Your task to perform on an android device: turn on priority inbox in the gmail app Image 0: 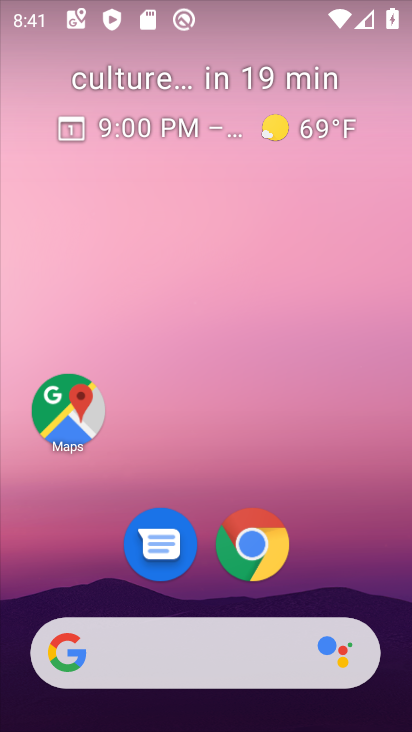
Step 0: drag from (230, 557) to (246, 187)
Your task to perform on an android device: turn on priority inbox in the gmail app Image 1: 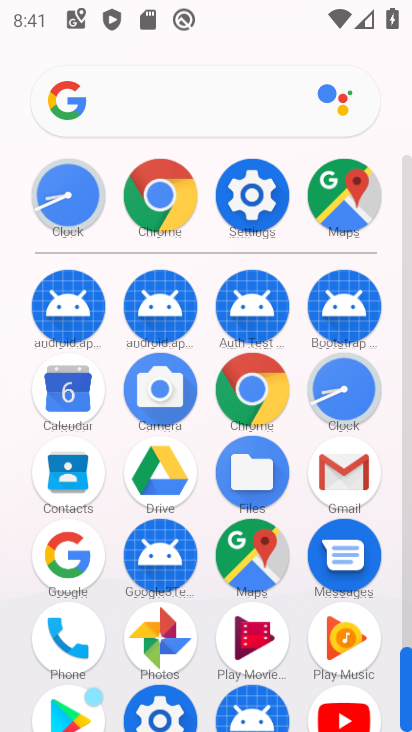
Step 1: click (342, 478)
Your task to perform on an android device: turn on priority inbox in the gmail app Image 2: 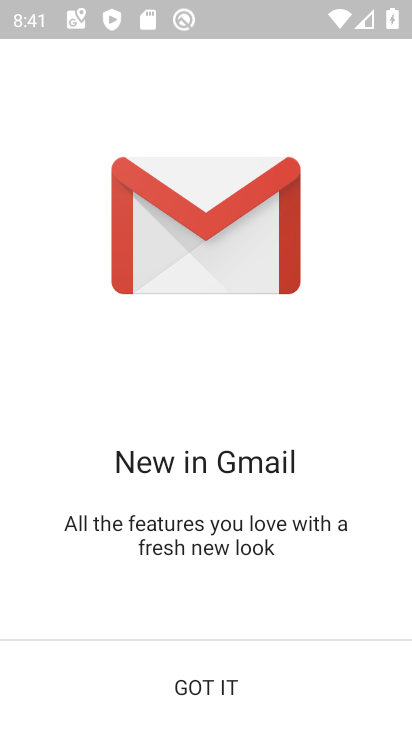
Step 2: click (221, 697)
Your task to perform on an android device: turn on priority inbox in the gmail app Image 3: 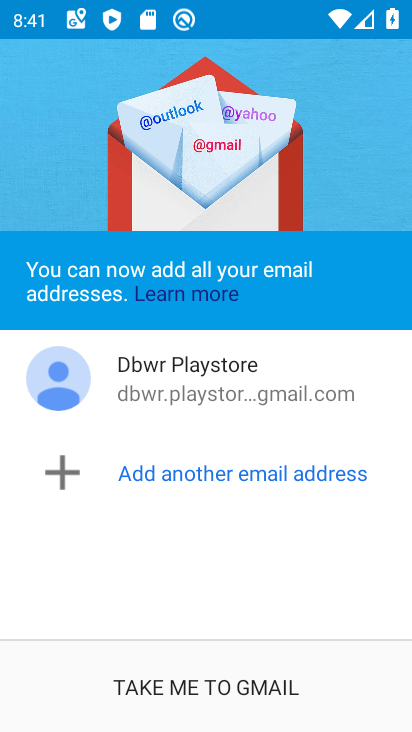
Step 3: click (213, 694)
Your task to perform on an android device: turn on priority inbox in the gmail app Image 4: 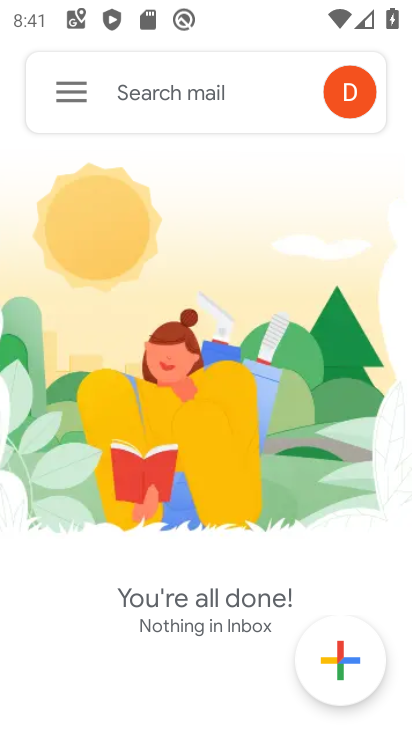
Step 4: click (68, 87)
Your task to perform on an android device: turn on priority inbox in the gmail app Image 5: 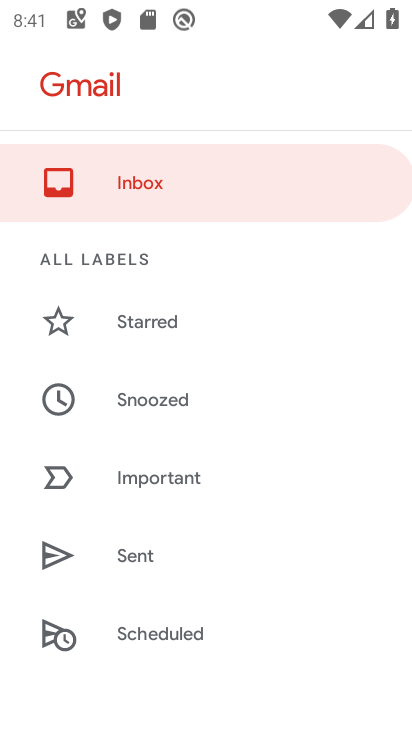
Step 5: drag from (120, 592) to (161, 106)
Your task to perform on an android device: turn on priority inbox in the gmail app Image 6: 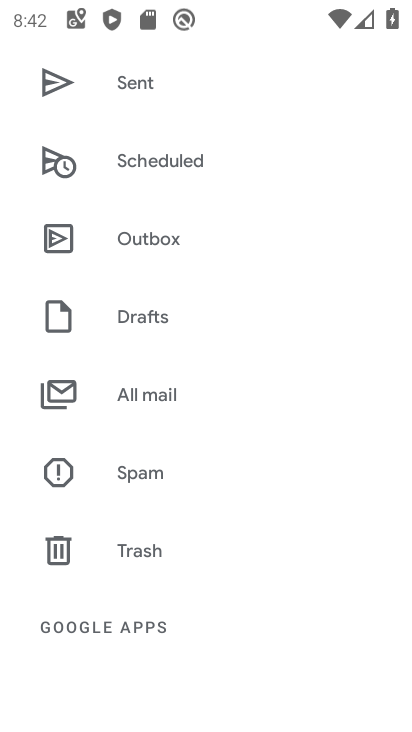
Step 6: drag from (219, 585) to (251, 67)
Your task to perform on an android device: turn on priority inbox in the gmail app Image 7: 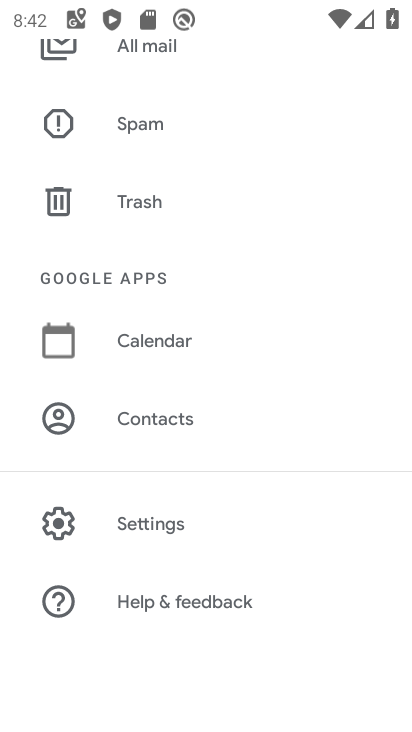
Step 7: click (151, 519)
Your task to perform on an android device: turn on priority inbox in the gmail app Image 8: 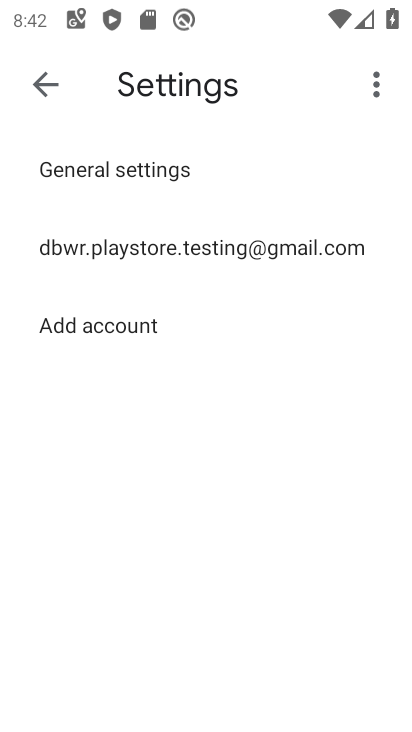
Step 8: click (144, 234)
Your task to perform on an android device: turn on priority inbox in the gmail app Image 9: 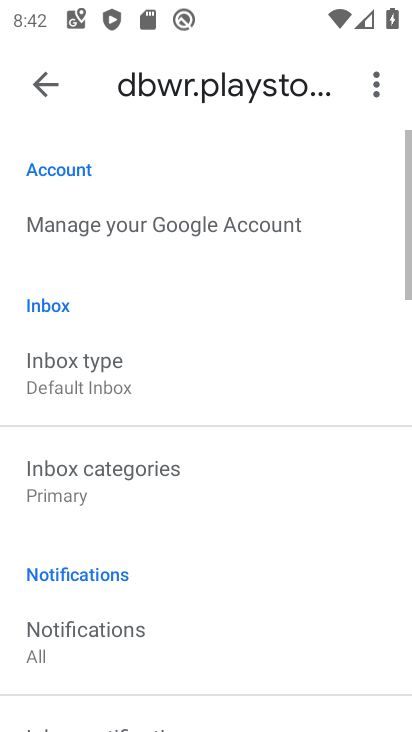
Step 9: click (89, 370)
Your task to perform on an android device: turn on priority inbox in the gmail app Image 10: 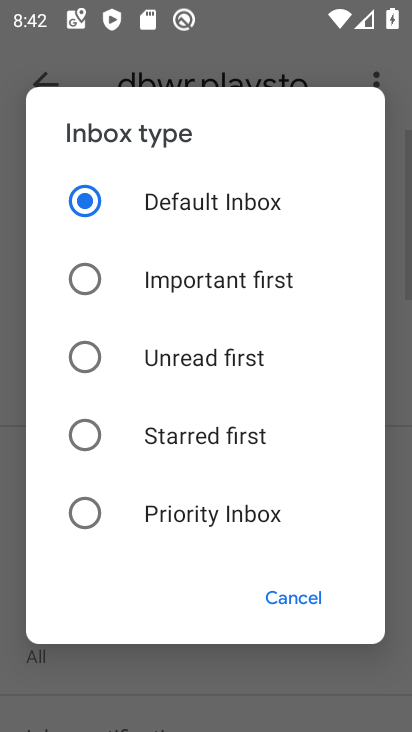
Step 10: click (185, 515)
Your task to perform on an android device: turn on priority inbox in the gmail app Image 11: 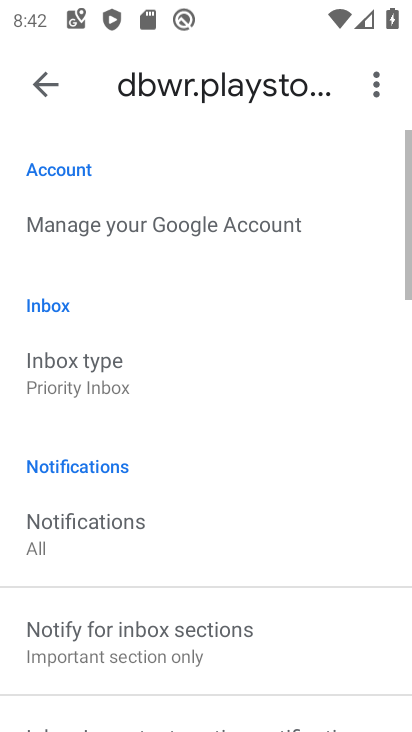
Step 11: task complete